Your task to perform on an android device: Open Chrome and go to settings Image 0: 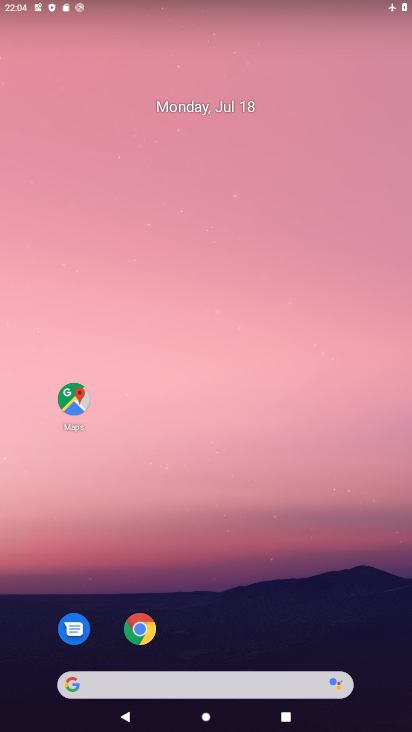
Step 0: drag from (247, 556) to (255, 401)
Your task to perform on an android device: Open Chrome and go to settings Image 1: 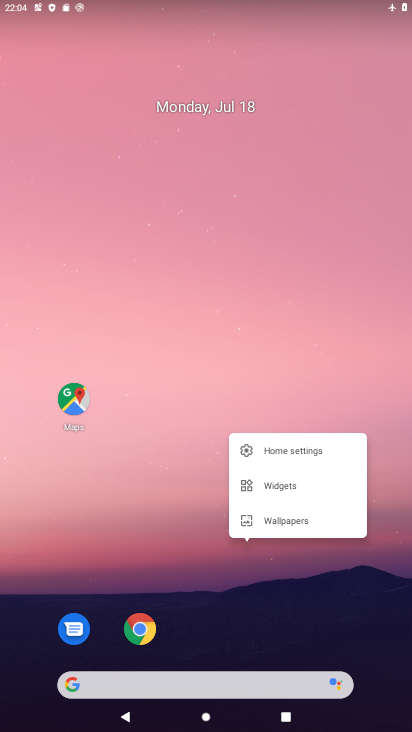
Step 1: click (200, 585)
Your task to perform on an android device: Open Chrome and go to settings Image 2: 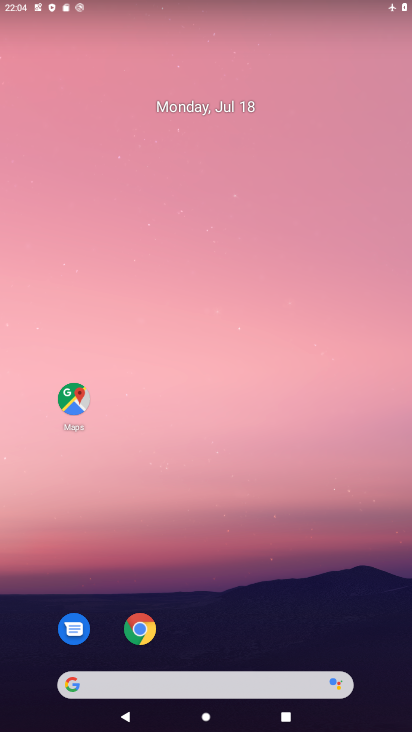
Step 2: drag from (200, 585) to (277, 71)
Your task to perform on an android device: Open Chrome and go to settings Image 3: 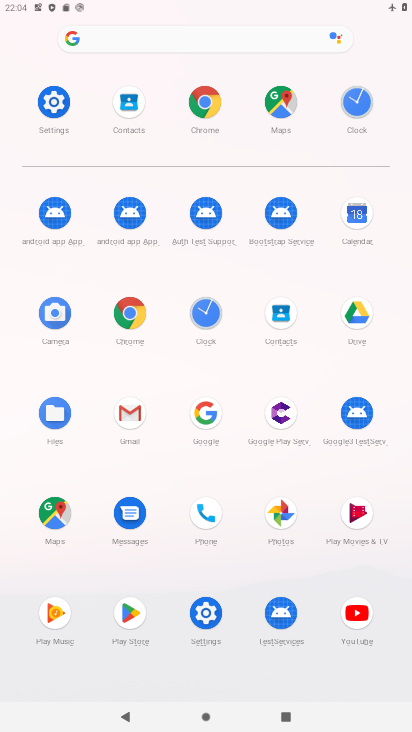
Step 3: click (208, 103)
Your task to perform on an android device: Open Chrome and go to settings Image 4: 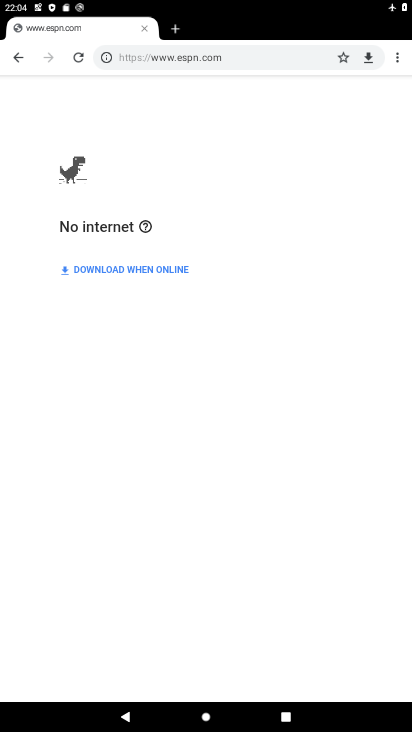
Step 4: task complete